Your task to perform on an android device: open chrome and create a bookmark for the current page Image 0: 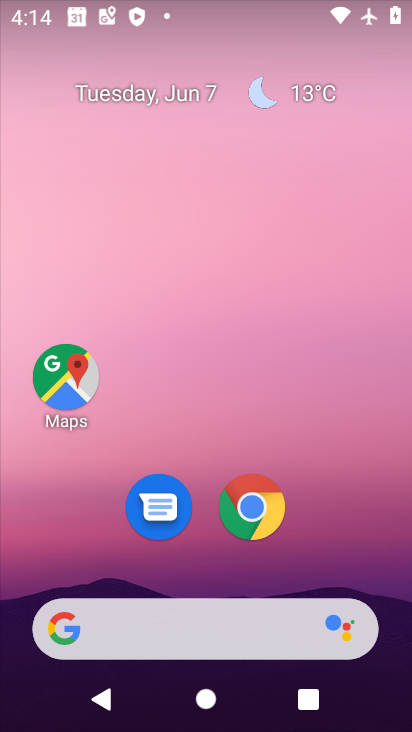
Step 0: drag from (347, 538) to (283, 32)
Your task to perform on an android device: open chrome and create a bookmark for the current page Image 1: 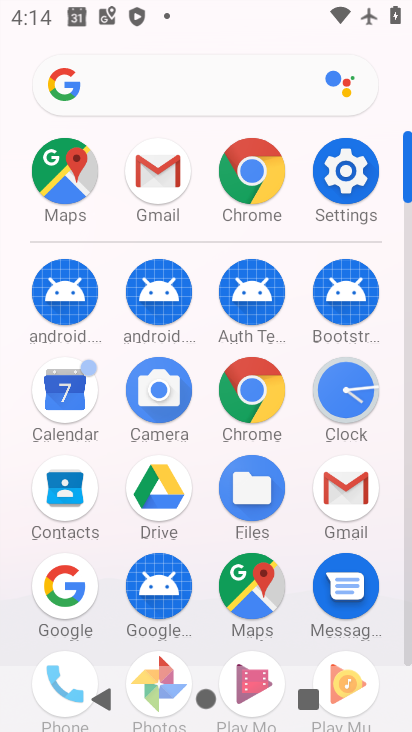
Step 1: drag from (0, 620) to (24, 227)
Your task to perform on an android device: open chrome and create a bookmark for the current page Image 2: 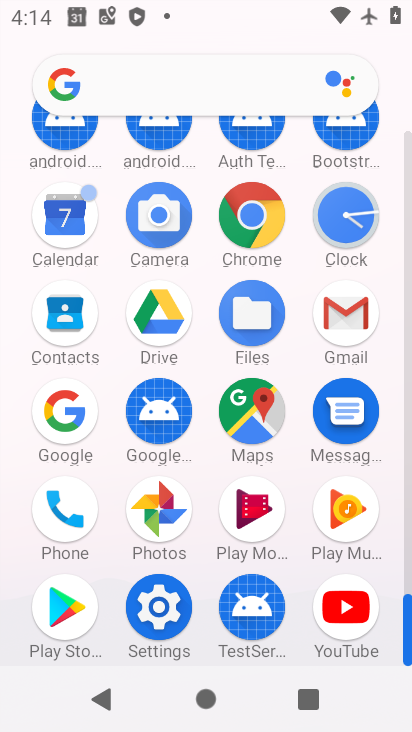
Step 2: click (247, 212)
Your task to perform on an android device: open chrome and create a bookmark for the current page Image 3: 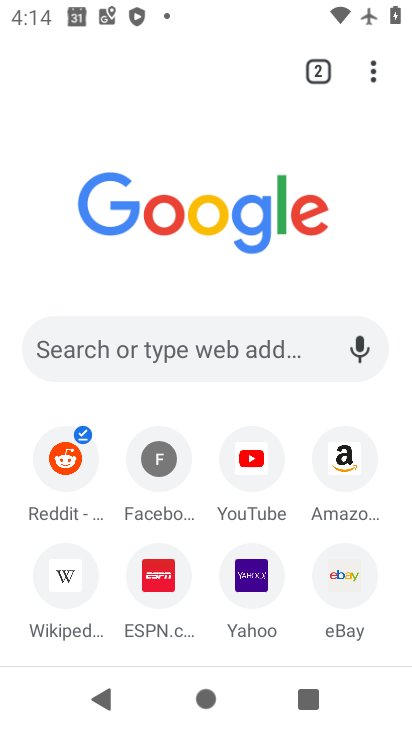
Step 3: task complete